Your task to perform on an android device: Go to Maps Image 0: 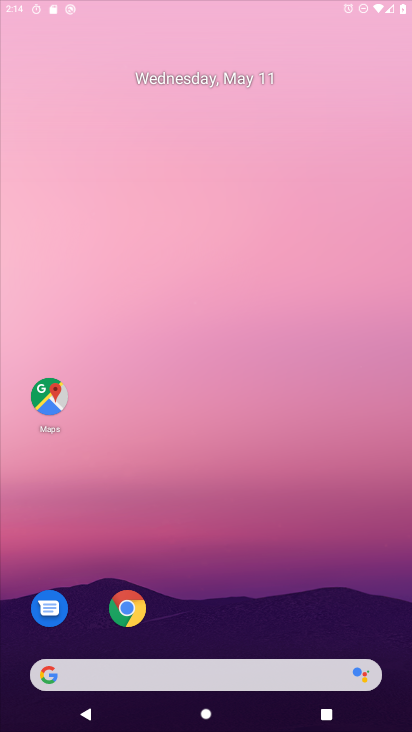
Step 0: click (269, 140)
Your task to perform on an android device: Go to Maps Image 1: 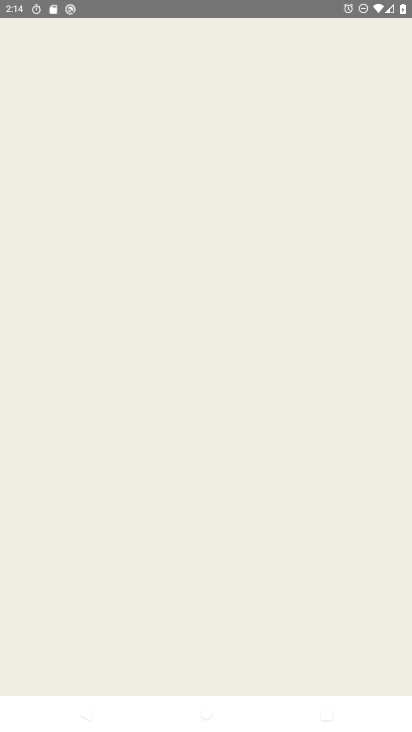
Step 1: press home button
Your task to perform on an android device: Go to Maps Image 2: 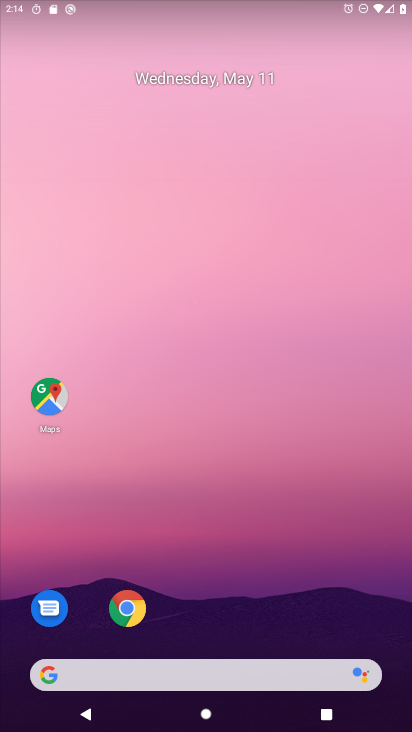
Step 2: drag from (186, 505) to (187, 124)
Your task to perform on an android device: Go to Maps Image 3: 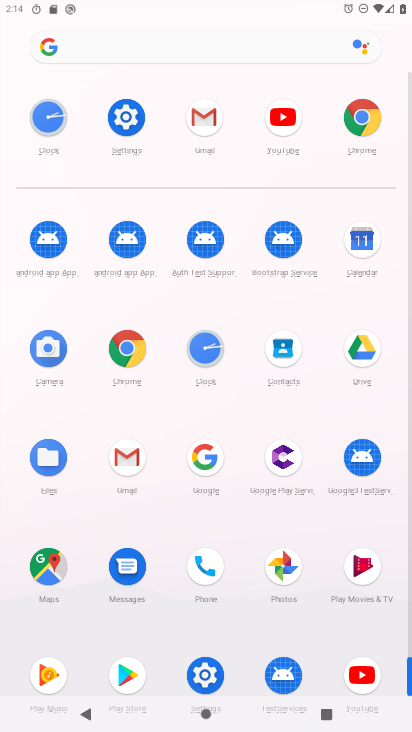
Step 3: click (49, 586)
Your task to perform on an android device: Go to Maps Image 4: 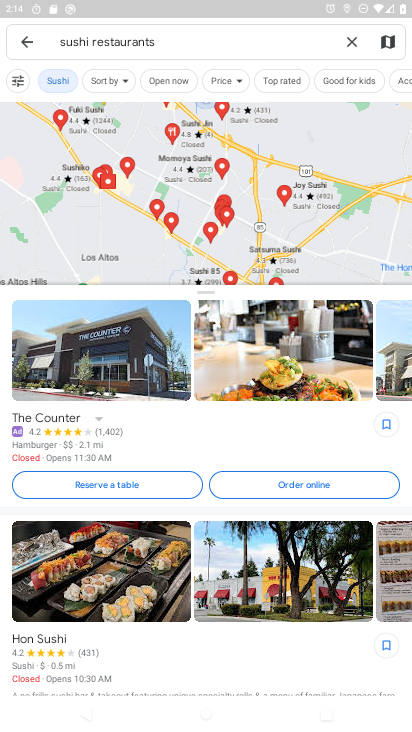
Step 4: task complete